Your task to perform on an android device: open app "The Home Depot" Image 0: 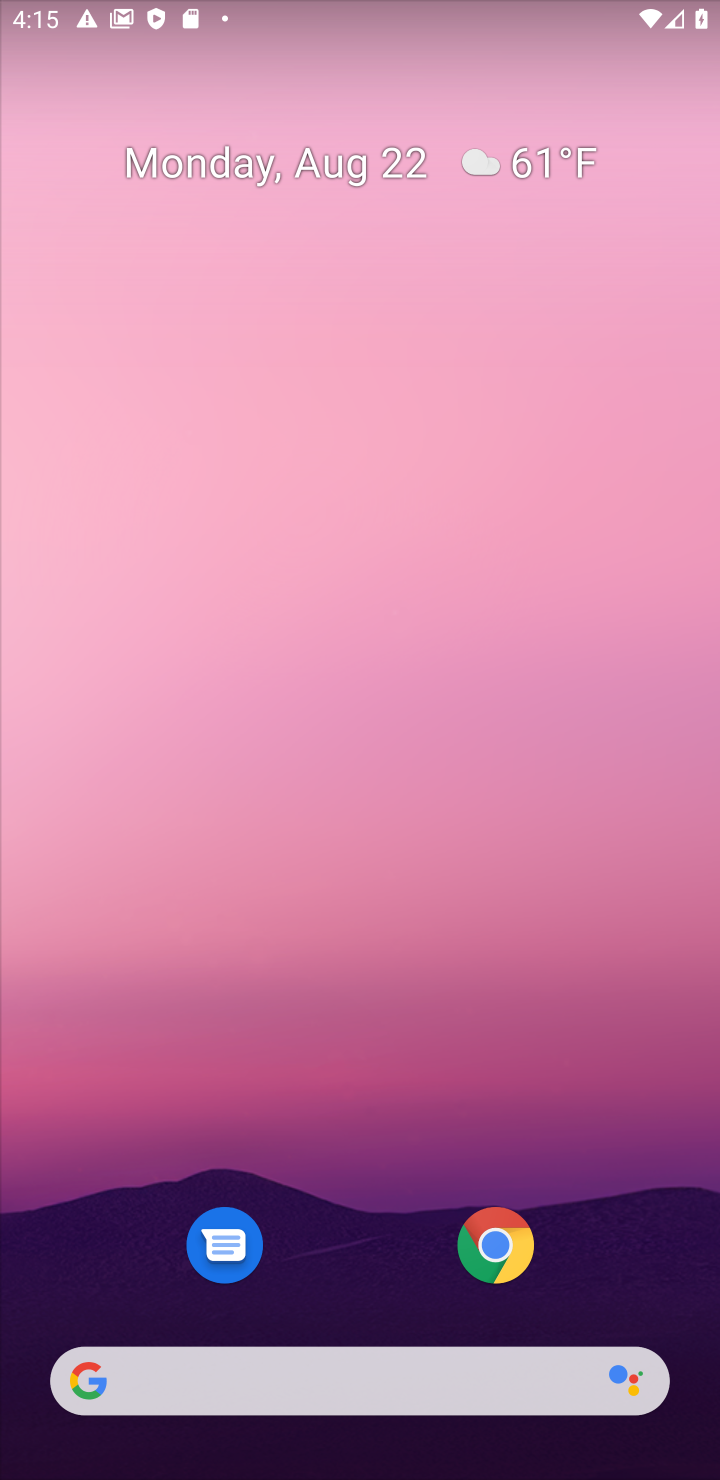
Step 0: drag from (620, 1260) to (539, 108)
Your task to perform on an android device: open app "The Home Depot" Image 1: 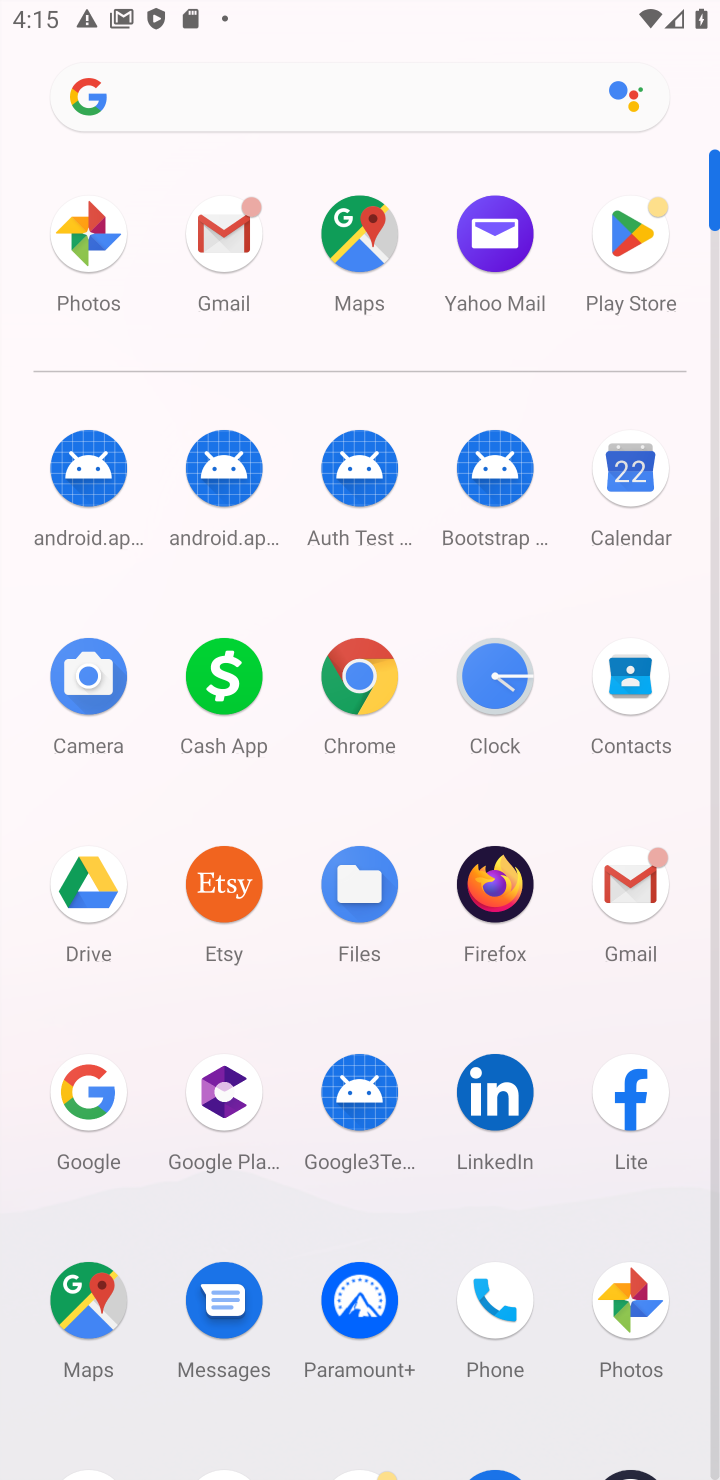
Step 1: click (631, 233)
Your task to perform on an android device: open app "The Home Depot" Image 2: 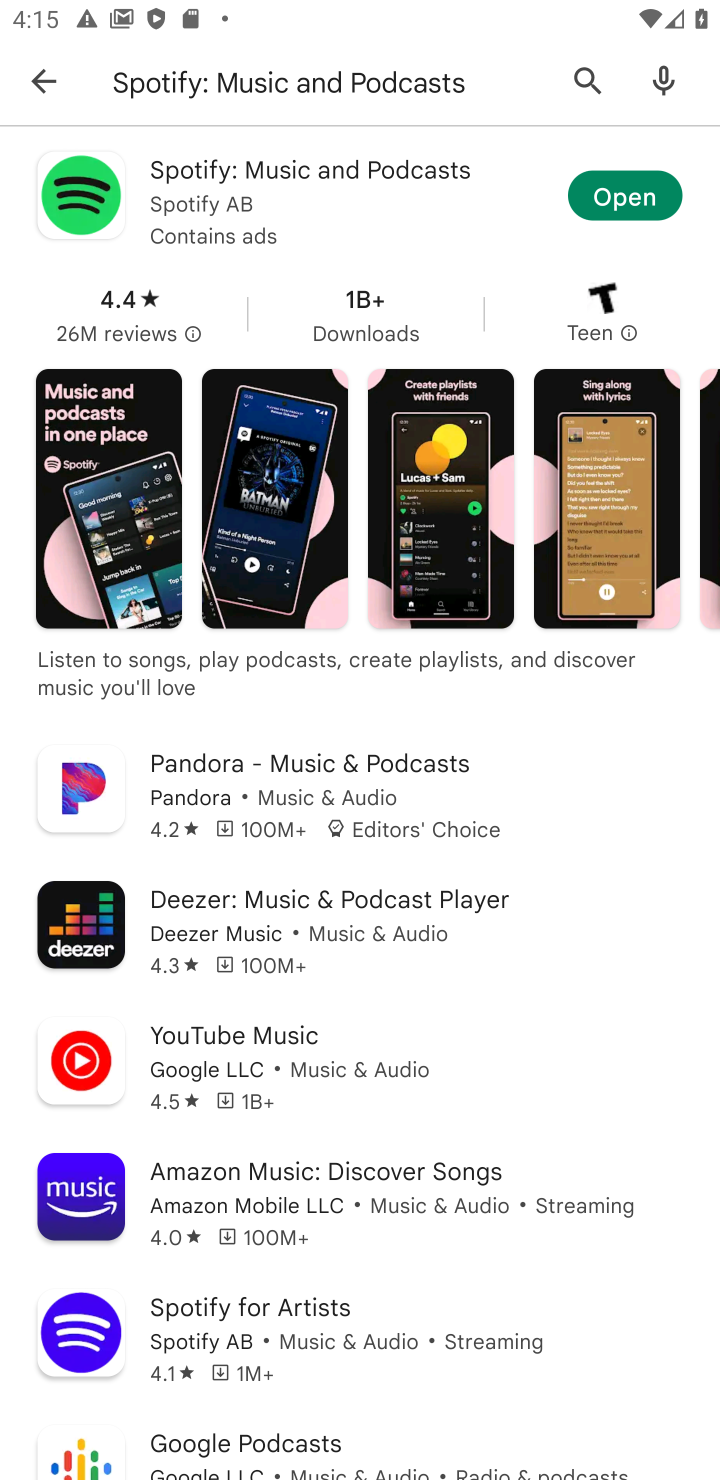
Step 2: press back button
Your task to perform on an android device: open app "The Home Depot" Image 3: 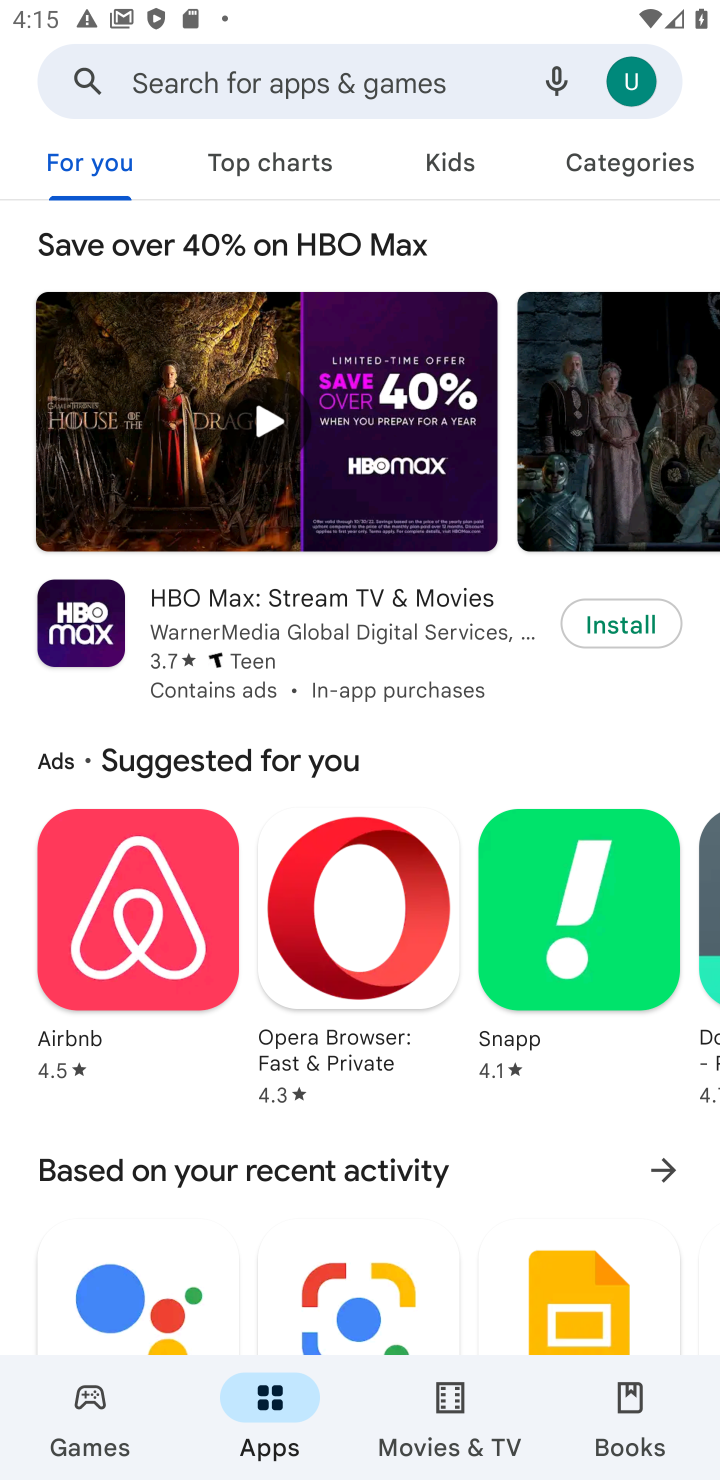
Step 3: click (340, 84)
Your task to perform on an android device: open app "The Home Depot" Image 4: 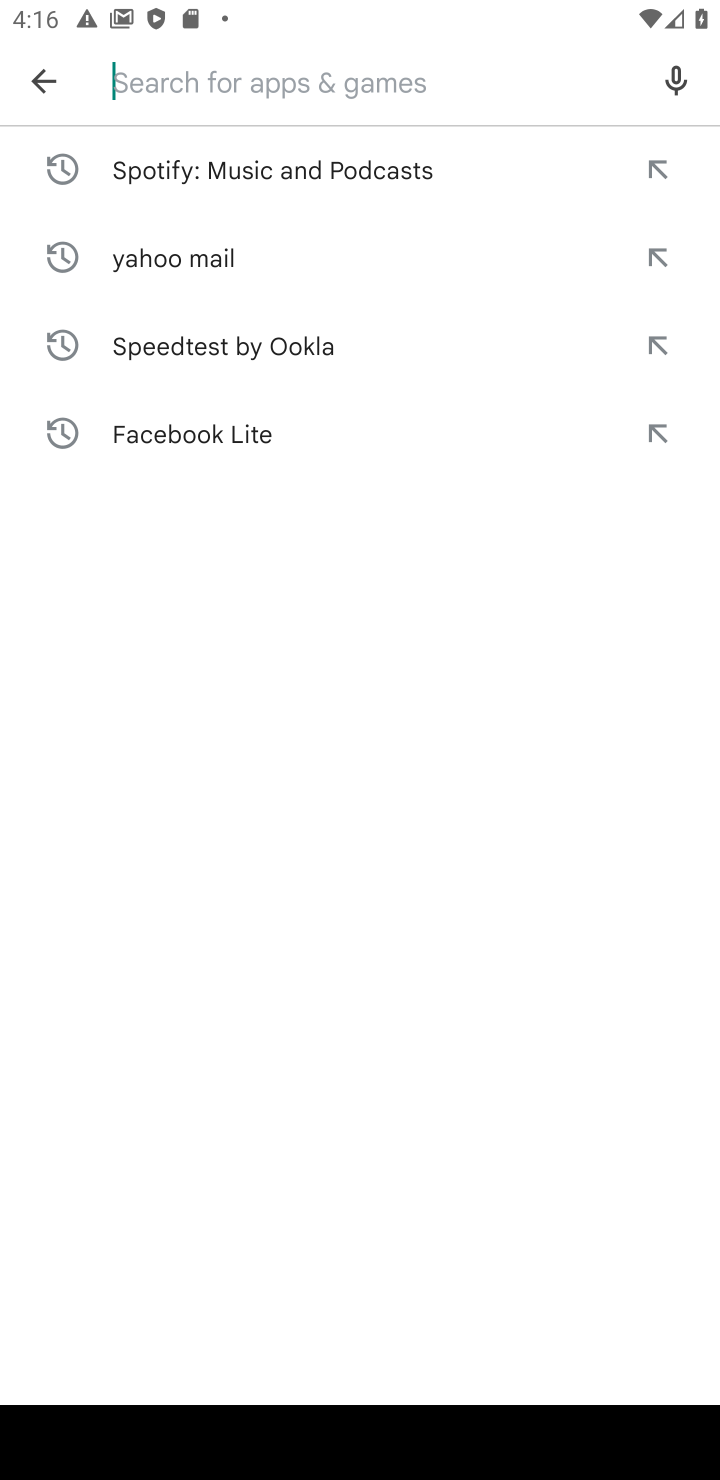
Step 4: type "The Home Depot"
Your task to perform on an android device: open app "The Home Depot" Image 5: 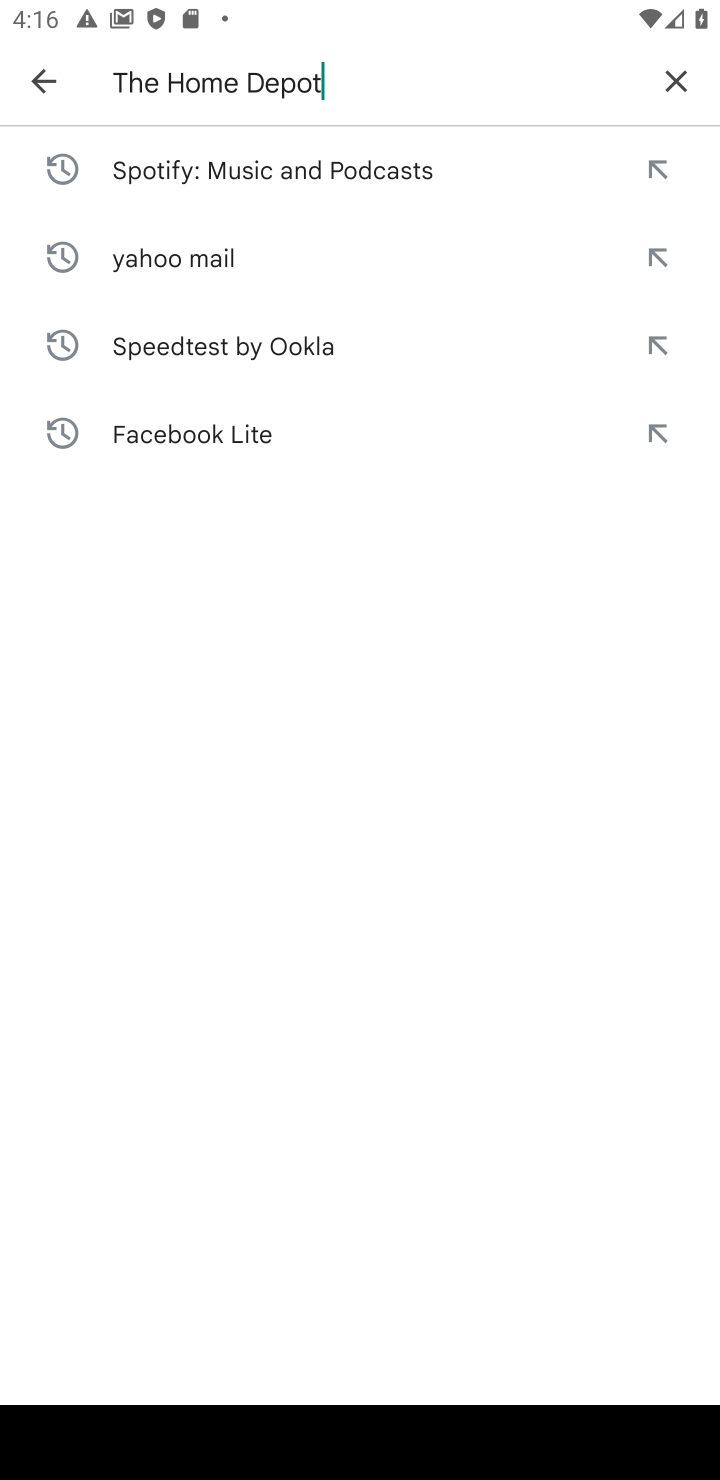
Step 5: press enter
Your task to perform on an android device: open app "The Home Depot" Image 6: 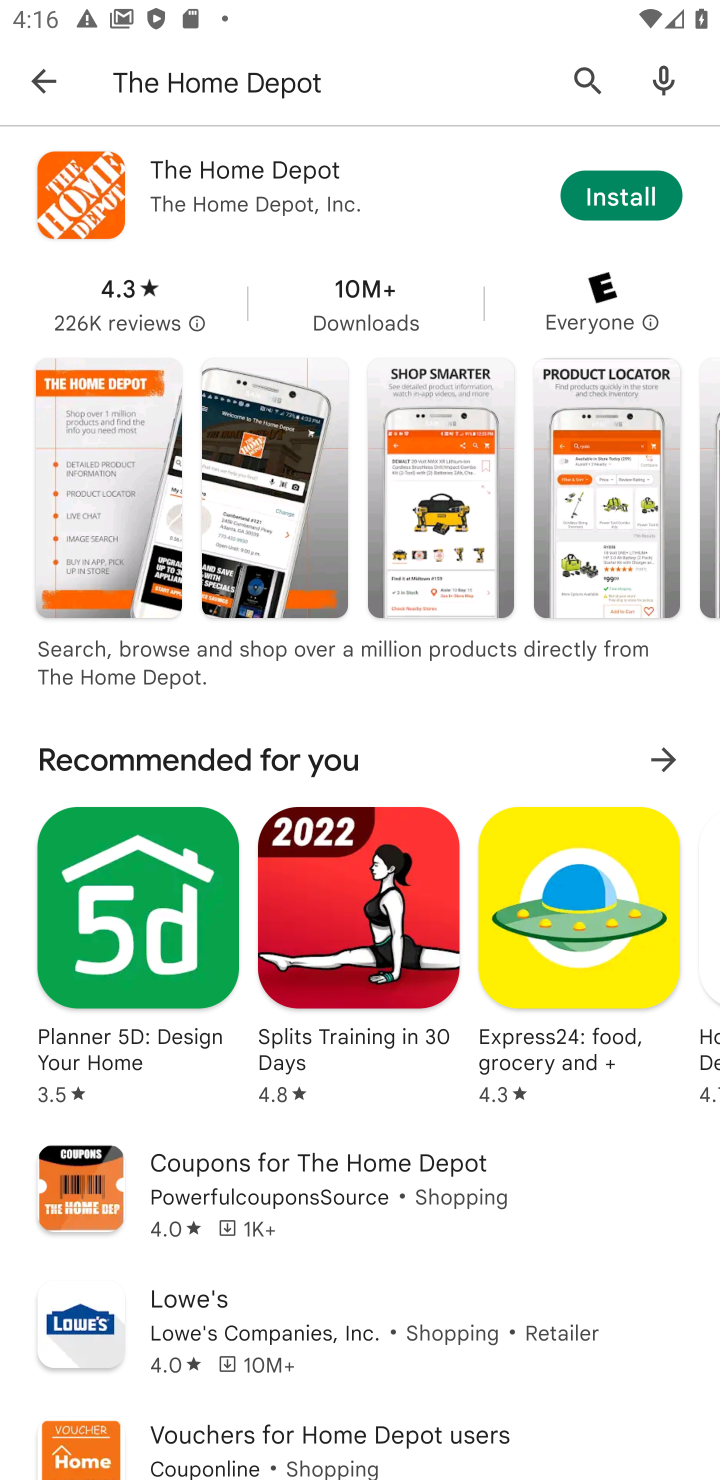
Step 6: task complete